Your task to perform on an android device: turn off priority inbox in the gmail app Image 0: 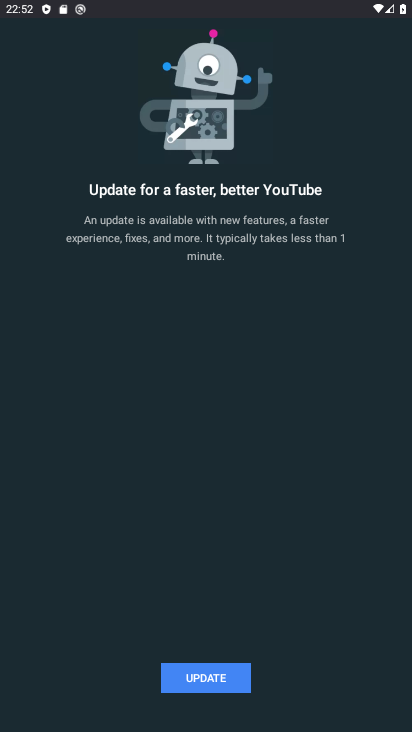
Step 0: press home button
Your task to perform on an android device: turn off priority inbox in the gmail app Image 1: 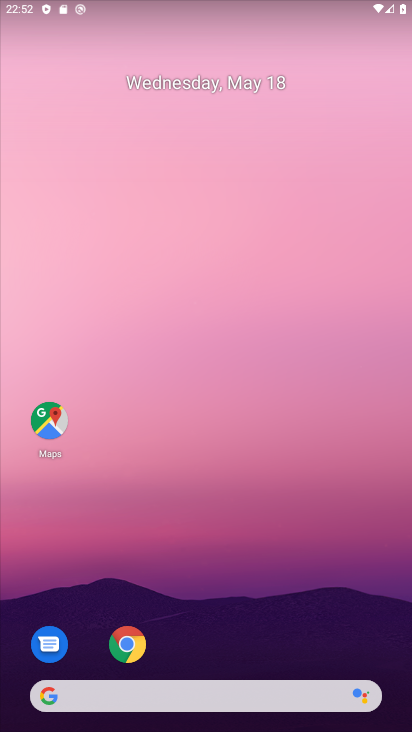
Step 1: drag from (323, 609) to (301, 190)
Your task to perform on an android device: turn off priority inbox in the gmail app Image 2: 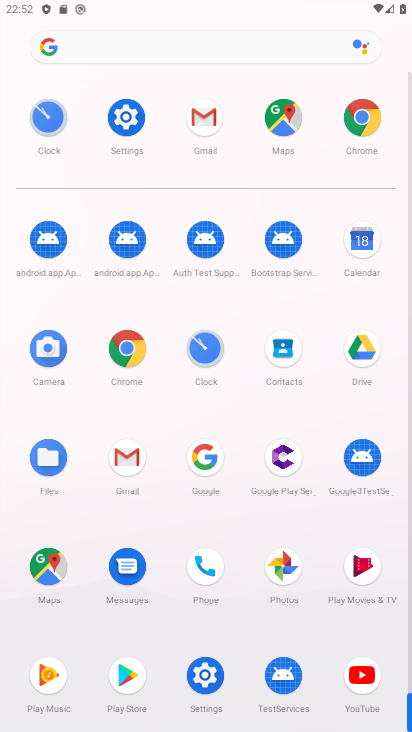
Step 2: click (126, 461)
Your task to perform on an android device: turn off priority inbox in the gmail app Image 3: 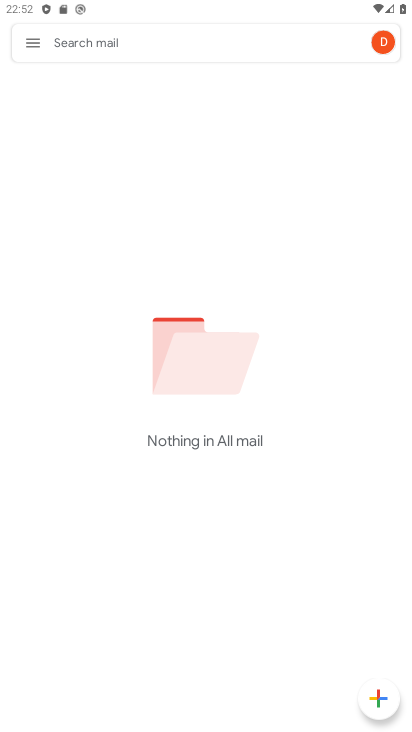
Step 3: click (37, 40)
Your task to perform on an android device: turn off priority inbox in the gmail app Image 4: 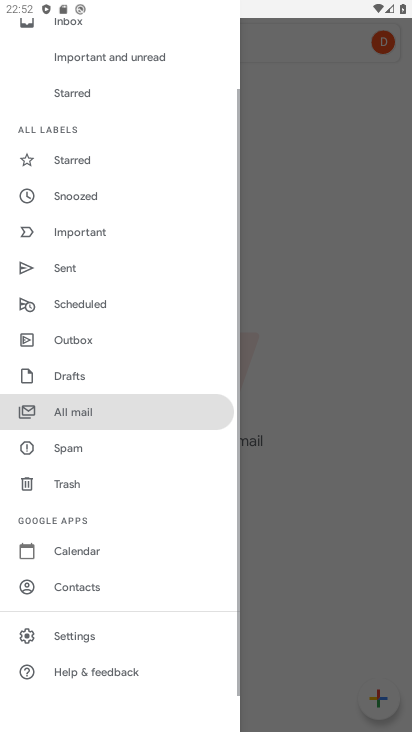
Step 4: drag from (178, 474) to (193, 194)
Your task to perform on an android device: turn off priority inbox in the gmail app Image 5: 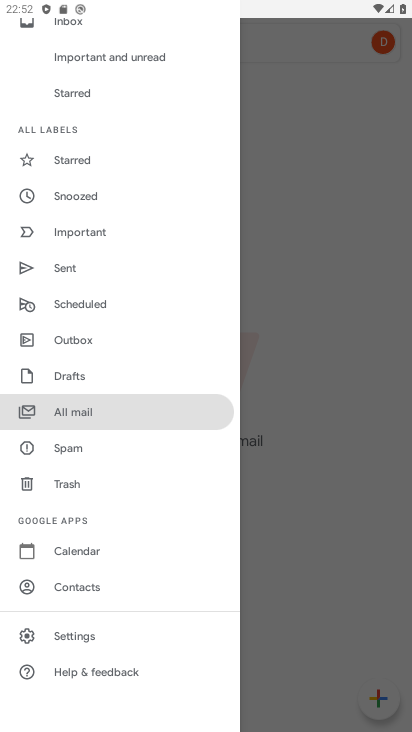
Step 5: click (84, 629)
Your task to perform on an android device: turn off priority inbox in the gmail app Image 6: 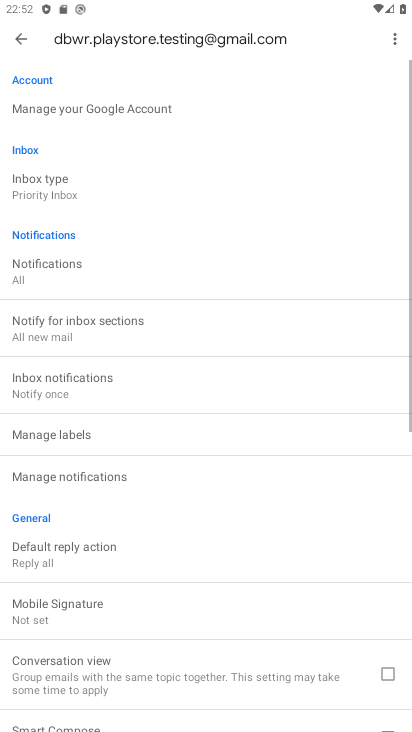
Step 6: drag from (94, 585) to (163, 686)
Your task to perform on an android device: turn off priority inbox in the gmail app Image 7: 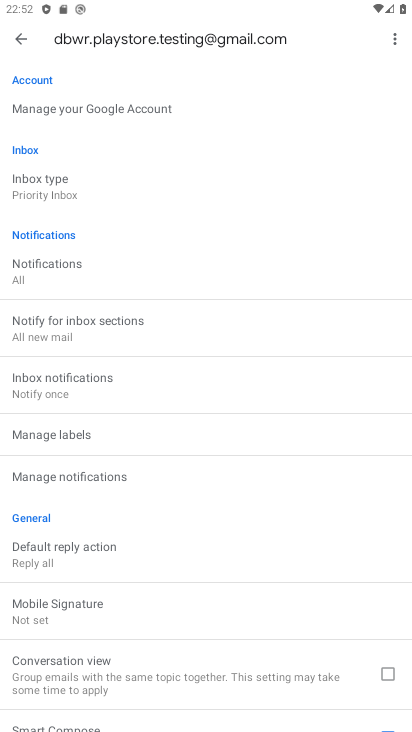
Step 7: click (61, 191)
Your task to perform on an android device: turn off priority inbox in the gmail app Image 8: 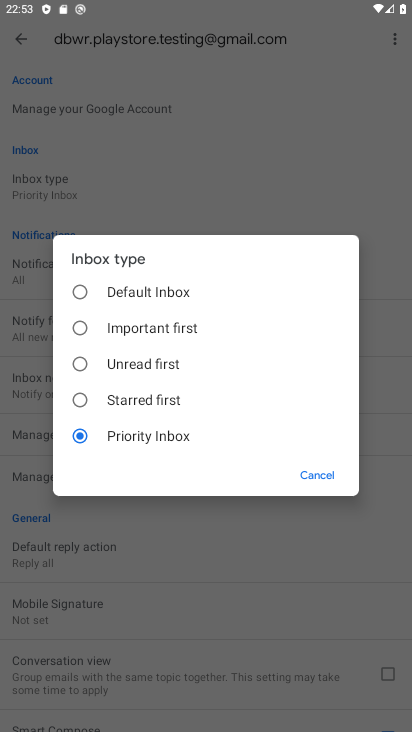
Step 8: task complete